Your task to perform on an android device: Search for sushi restaurants on Maps Image 0: 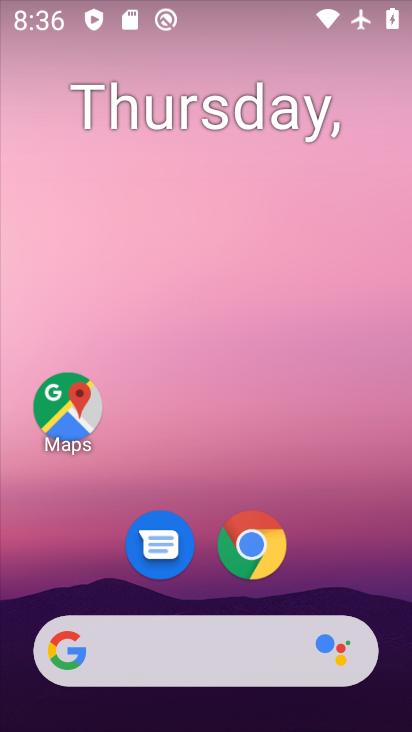
Step 0: click (68, 397)
Your task to perform on an android device: Search for sushi restaurants on Maps Image 1: 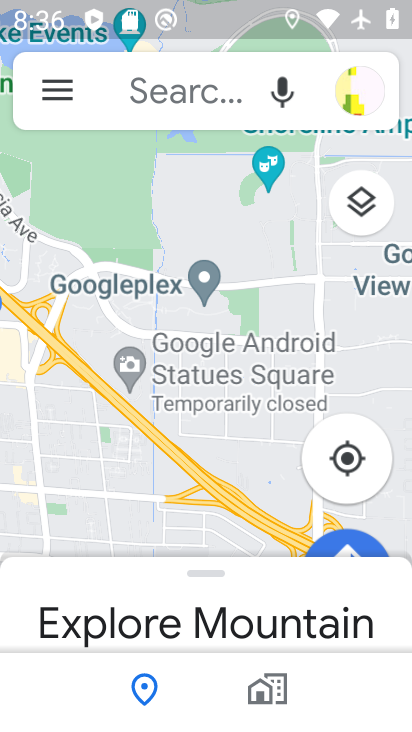
Step 1: click (171, 90)
Your task to perform on an android device: Search for sushi restaurants on Maps Image 2: 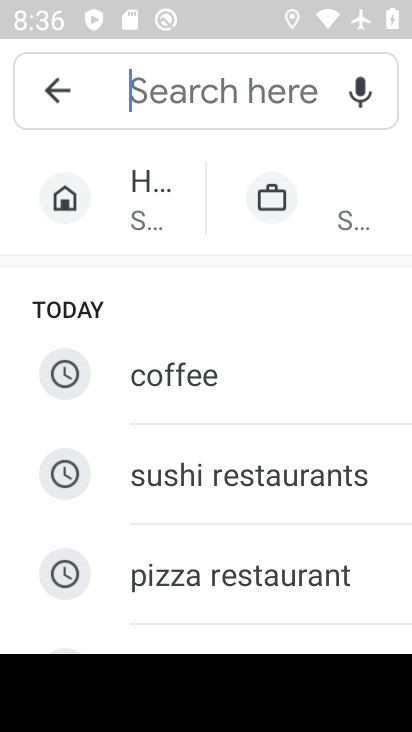
Step 2: click (217, 481)
Your task to perform on an android device: Search for sushi restaurants on Maps Image 3: 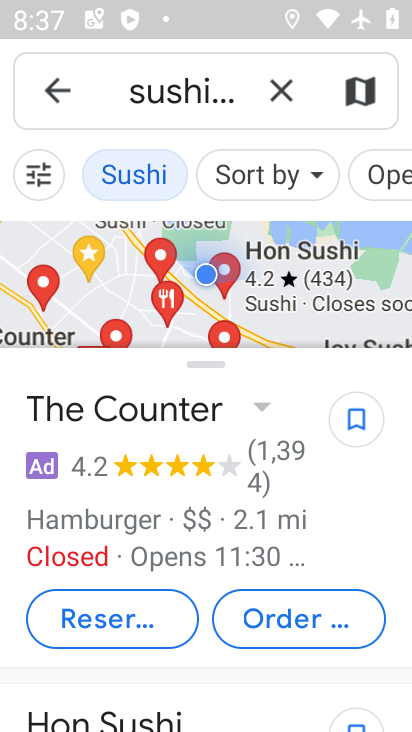
Step 3: task complete